Your task to perform on an android device: check out phone information Image 0: 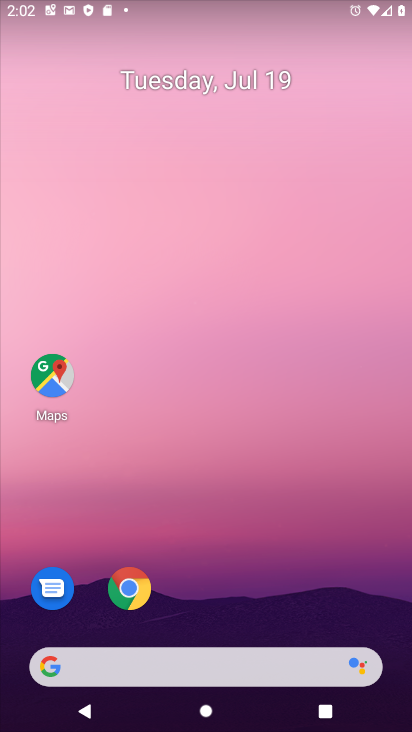
Step 0: drag from (345, 599) to (204, 4)
Your task to perform on an android device: check out phone information Image 1: 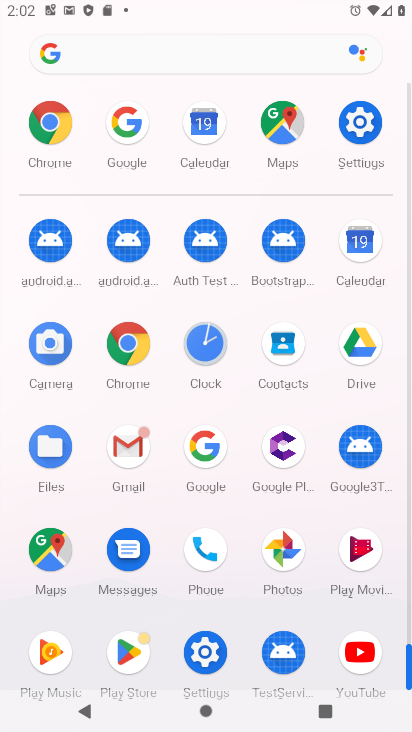
Step 1: click (357, 149)
Your task to perform on an android device: check out phone information Image 2: 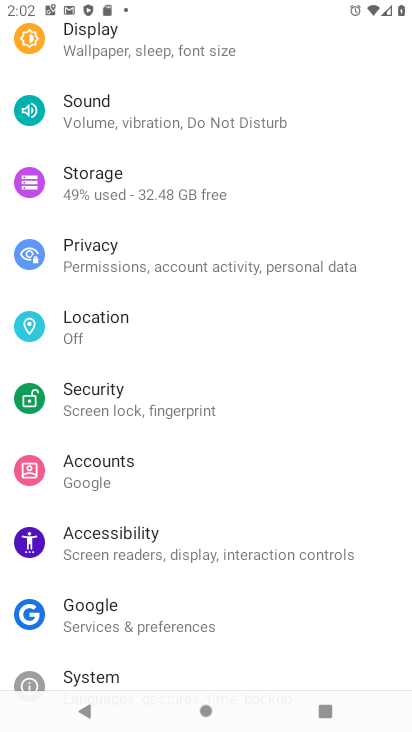
Step 2: task complete